Your task to perform on an android device: turn notification dots off Image 0: 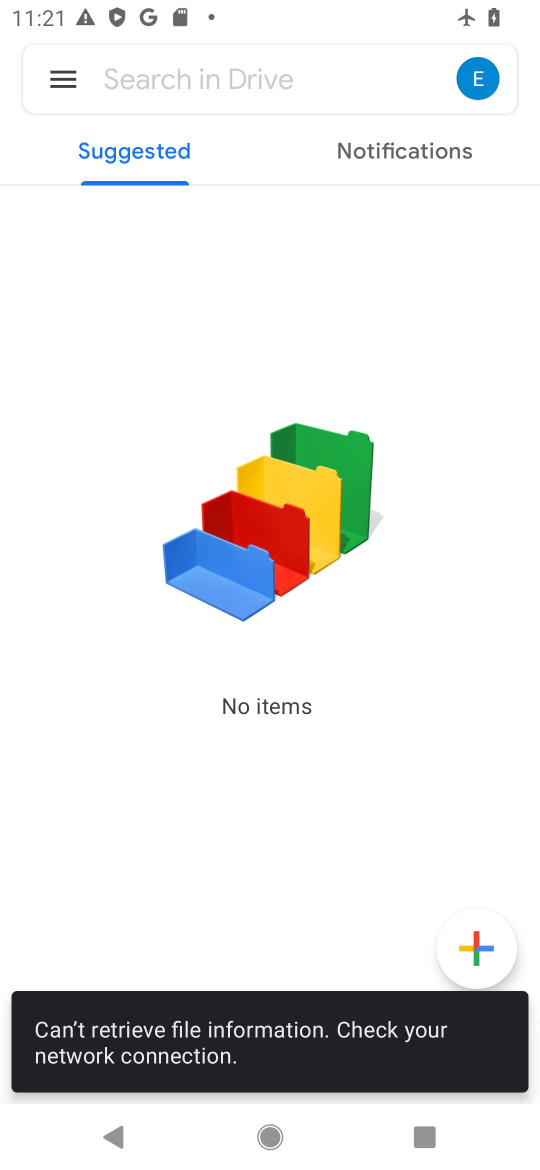
Step 0: press home button
Your task to perform on an android device: turn notification dots off Image 1: 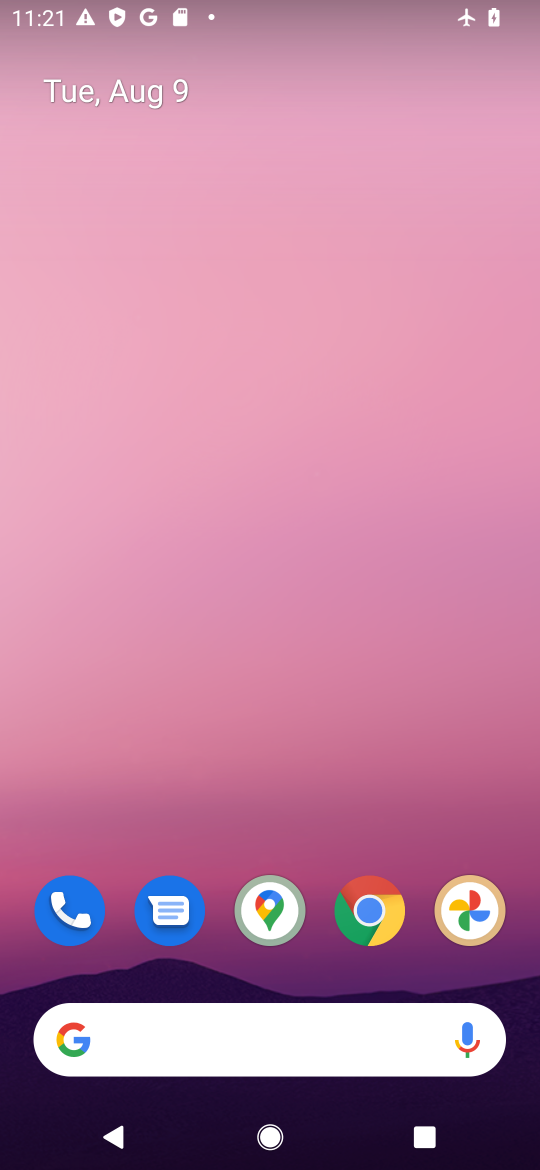
Step 1: drag from (102, 767) to (353, 192)
Your task to perform on an android device: turn notification dots off Image 2: 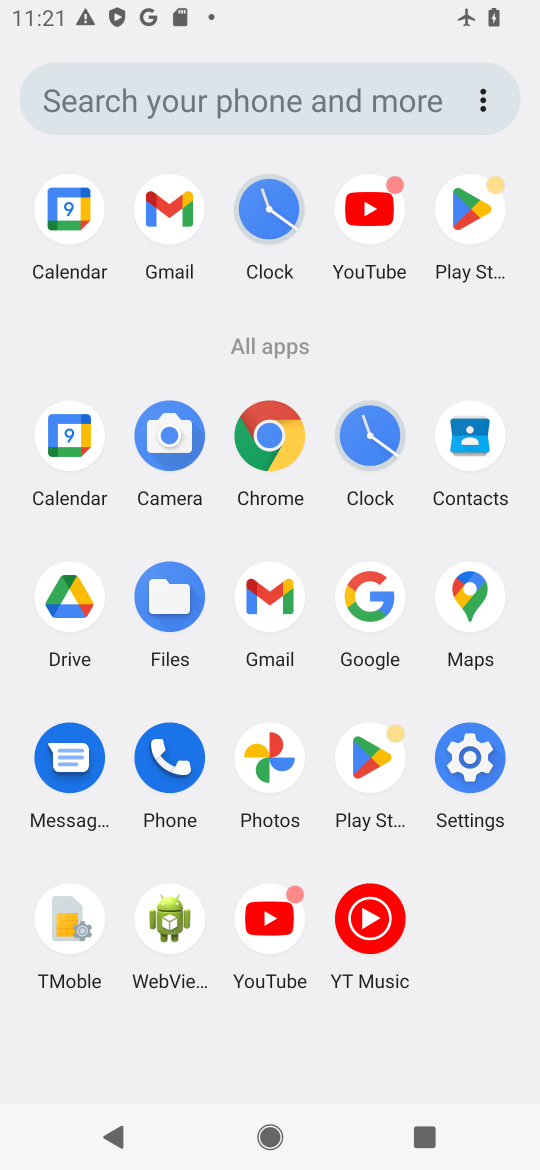
Step 2: click (452, 746)
Your task to perform on an android device: turn notification dots off Image 3: 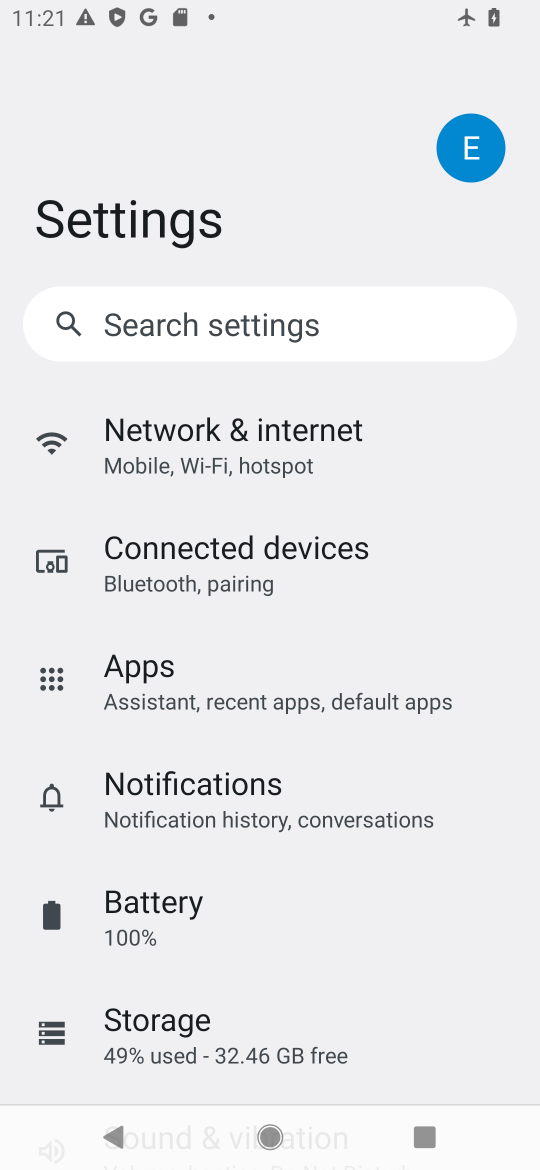
Step 3: click (281, 806)
Your task to perform on an android device: turn notification dots off Image 4: 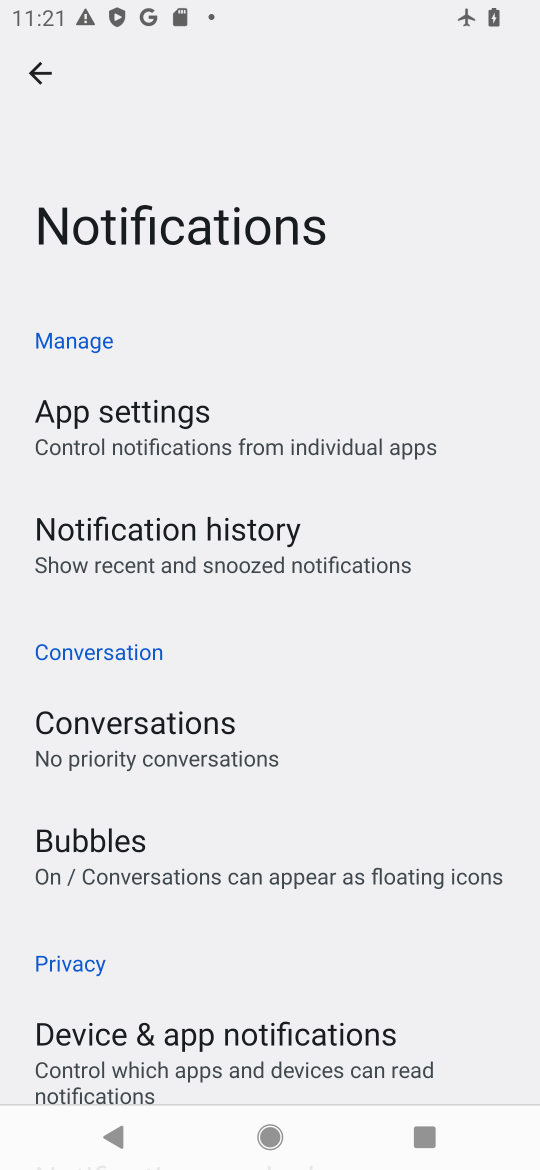
Step 4: drag from (81, 871) to (363, 318)
Your task to perform on an android device: turn notification dots off Image 5: 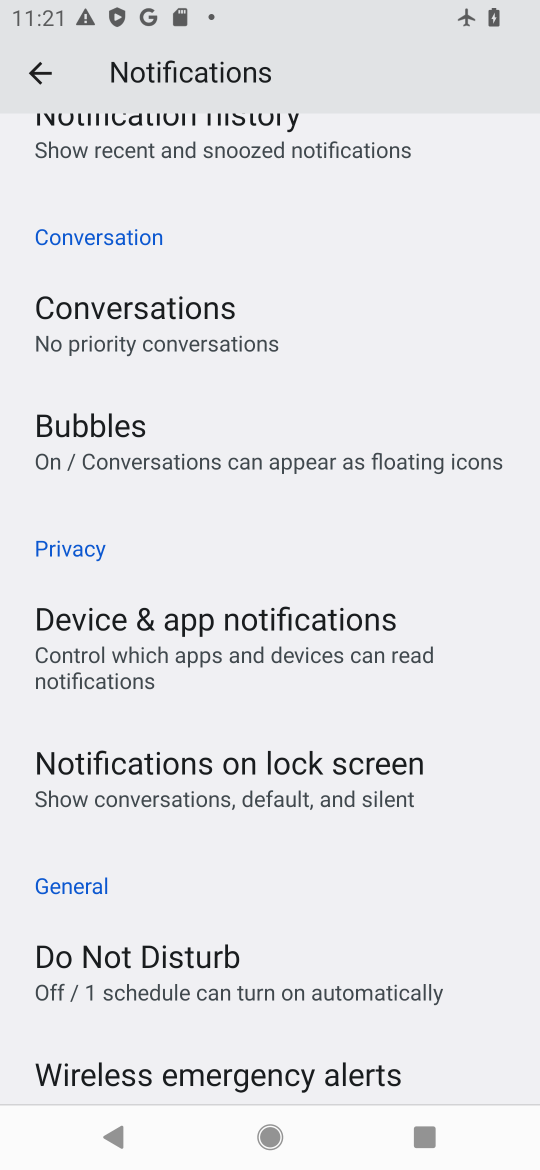
Step 5: drag from (194, 335) to (106, 1082)
Your task to perform on an android device: turn notification dots off Image 6: 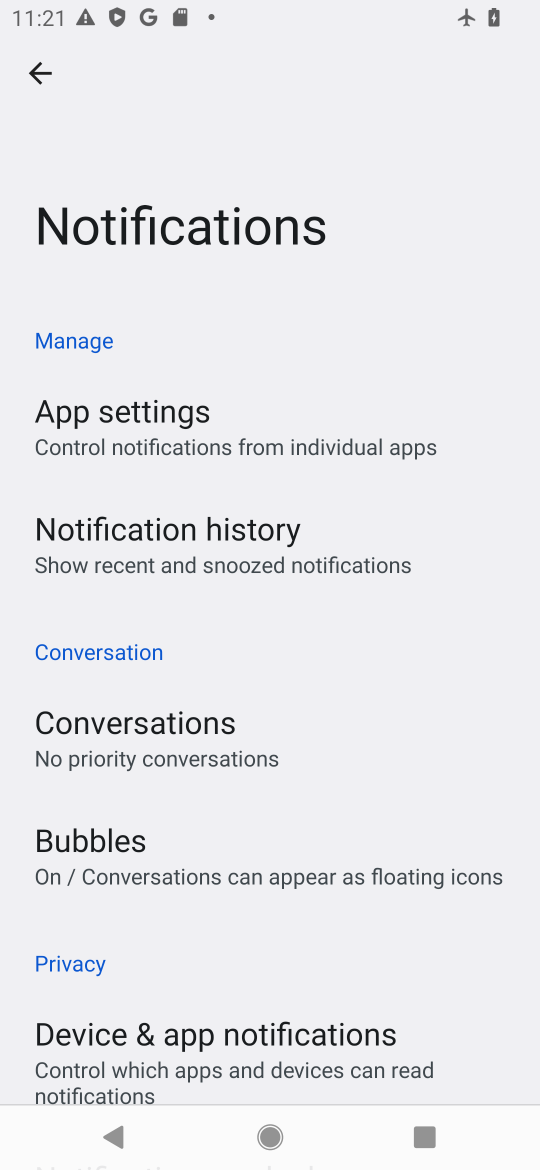
Step 6: click (195, 1042)
Your task to perform on an android device: turn notification dots off Image 7: 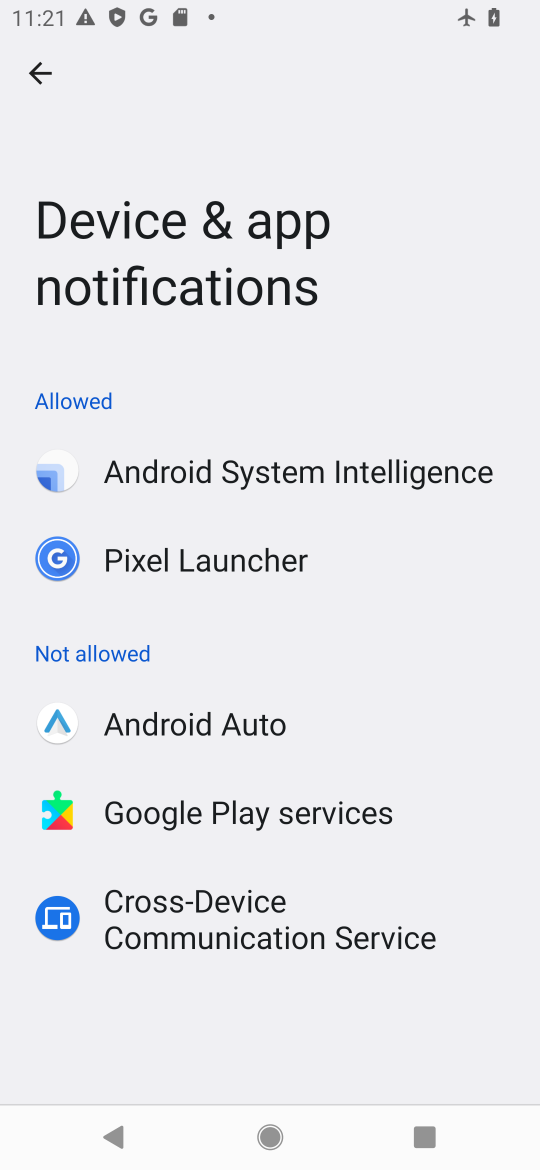
Step 7: task complete